Your task to perform on an android device: check the backup settings in the google photos Image 0: 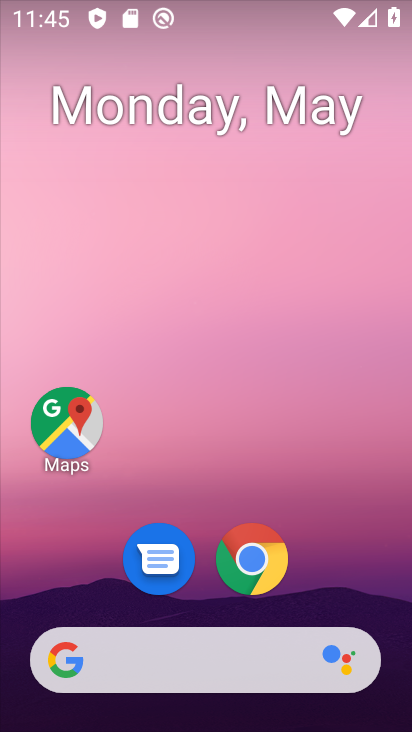
Step 0: drag from (77, 548) to (201, 28)
Your task to perform on an android device: check the backup settings in the google photos Image 1: 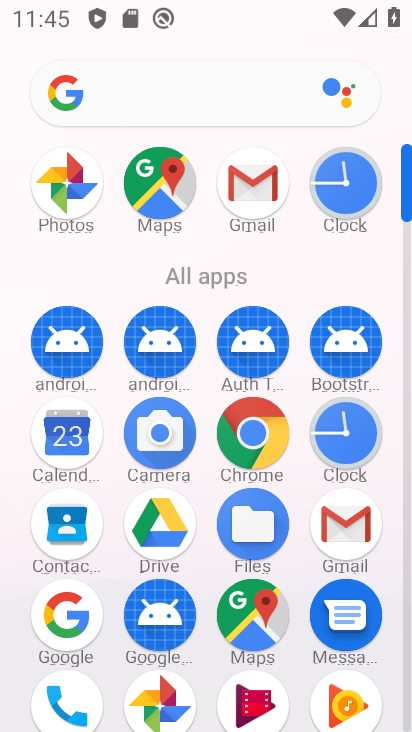
Step 1: click (170, 700)
Your task to perform on an android device: check the backup settings in the google photos Image 2: 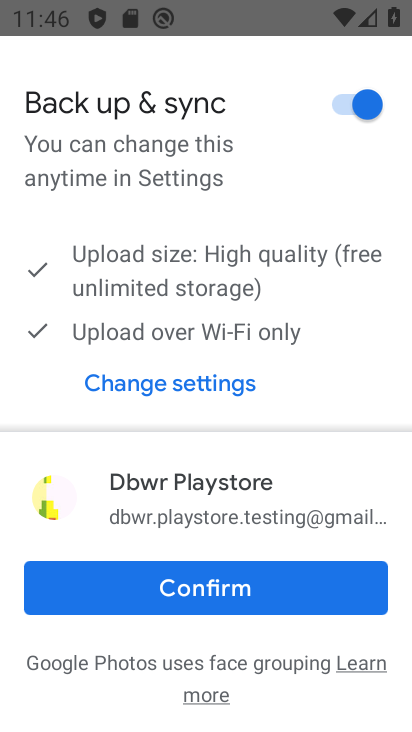
Step 2: click (231, 607)
Your task to perform on an android device: check the backup settings in the google photos Image 3: 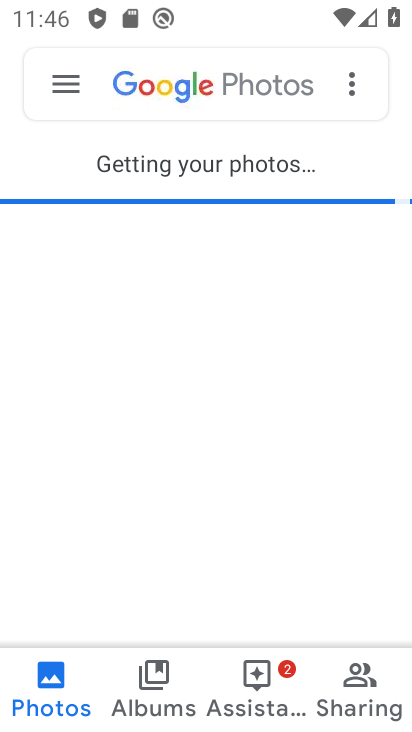
Step 3: click (53, 74)
Your task to perform on an android device: check the backup settings in the google photos Image 4: 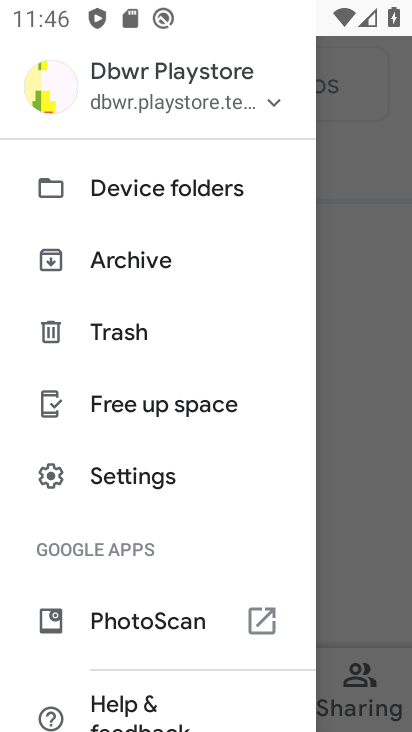
Step 4: click (200, 493)
Your task to perform on an android device: check the backup settings in the google photos Image 5: 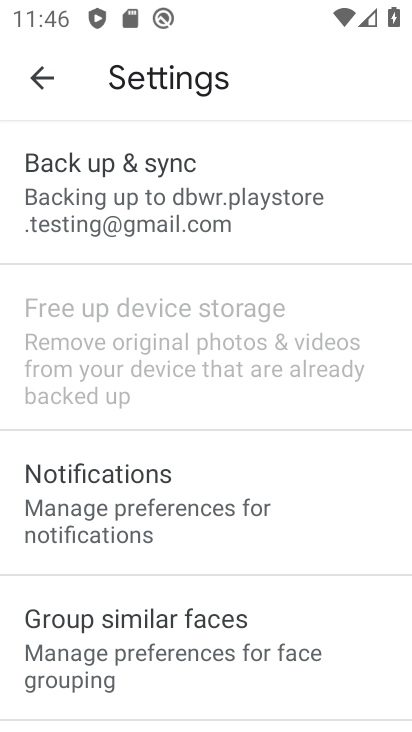
Step 5: click (179, 216)
Your task to perform on an android device: check the backup settings in the google photos Image 6: 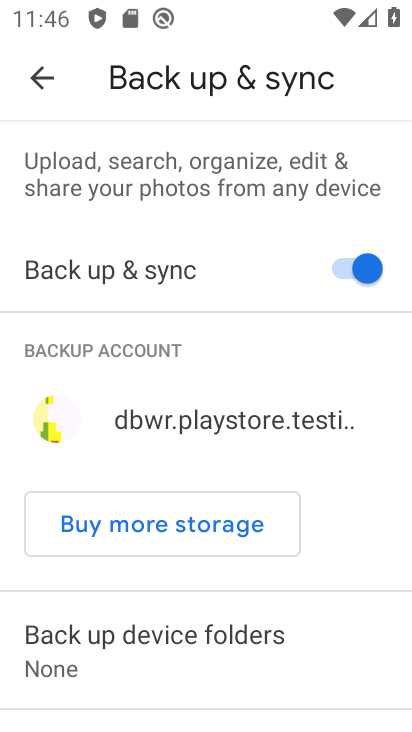
Step 6: drag from (198, 660) to (299, 216)
Your task to perform on an android device: check the backup settings in the google photos Image 7: 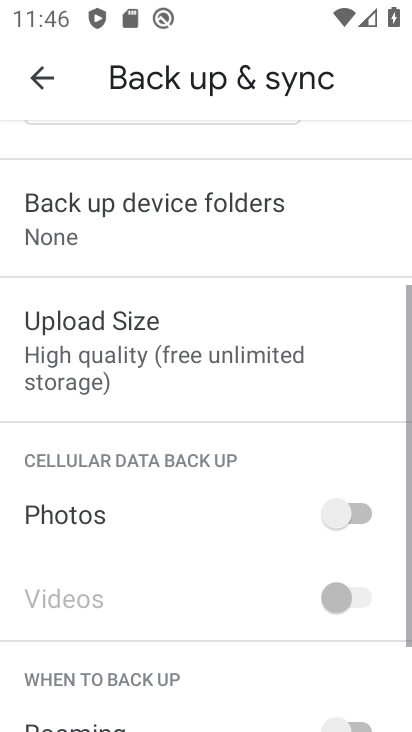
Step 7: click (199, 374)
Your task to perform on an android device: check the backup settings in the google photos Image 8: 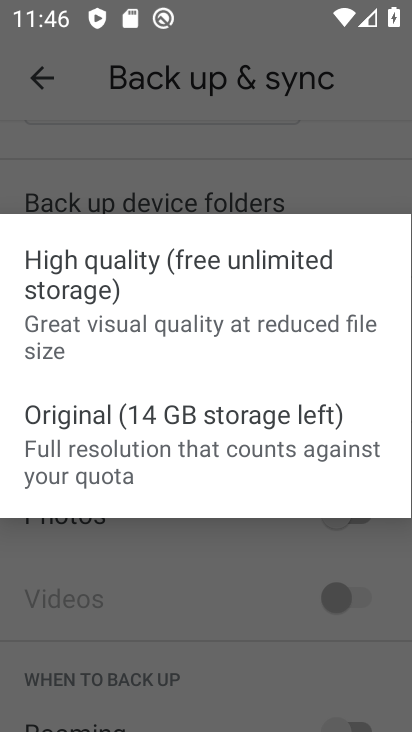
Step 8: click (186, 430)
Your task to perform on an android device: check the backup settings in the google photos Image 9: 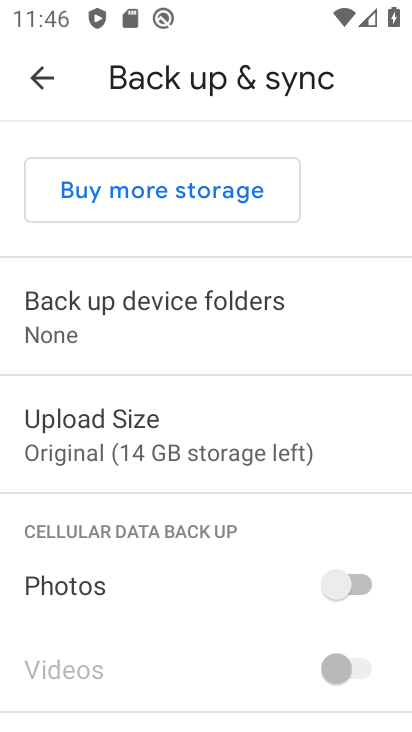
Step 9: task complete